Your task to perform on an android device: See recent photos Image 0: 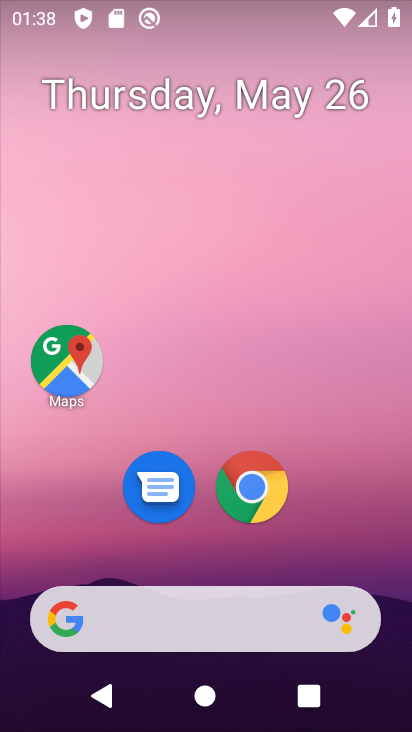
Step 0: drag from (197, 593) to (195, 18)
Your task to perform on an android device: See recent photos Image 1: 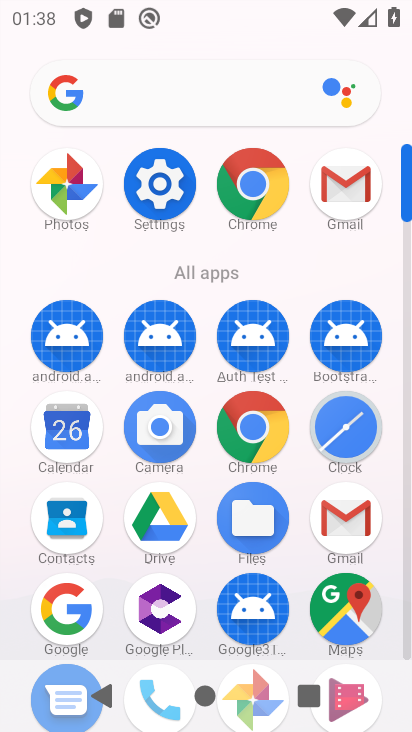
Step 1: click (79, 198)
Your task to perform on an android device: See recent photos Image 2: 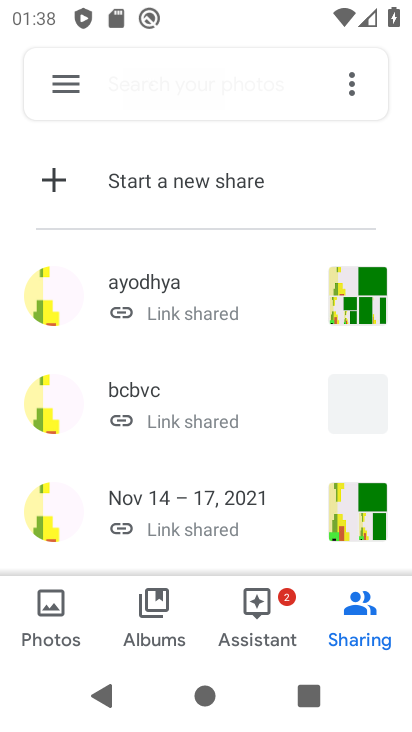
Step 2: click (56, 619)
Your task to perform on an android device: See recent photos Image 3: 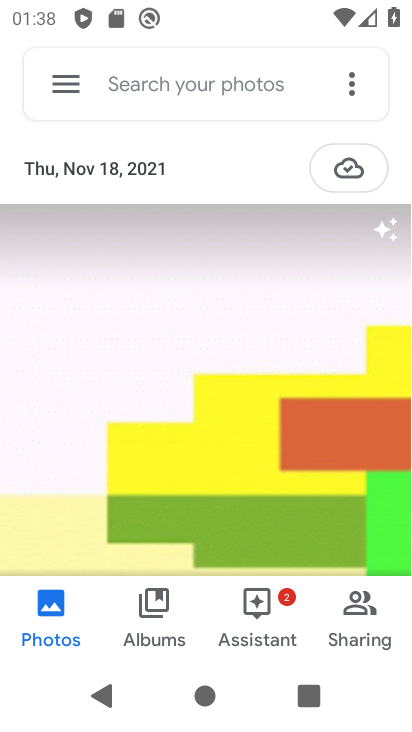
Step 3: task complete